Your task to perform on an android device: open chrome and create a bookmark for the current page Image 0: 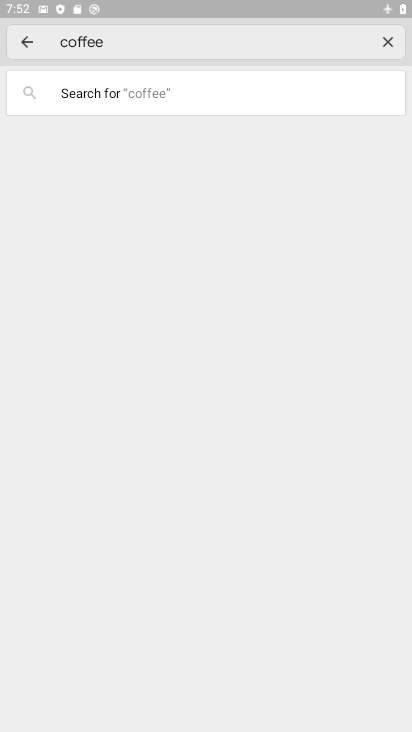
Step 0: press home button
Your task to perform on an android device: open chrome and create a bookmark for the current page Image 1: 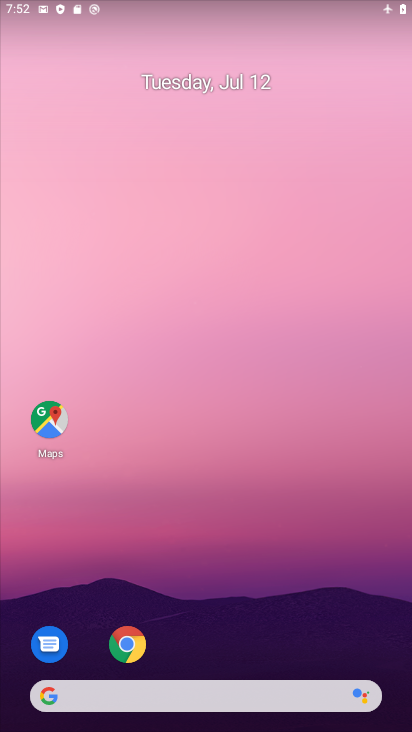
Step 1: click (122, 645)
Your task to perform on an android device: open chrome and create a bookmark for the current page Image 2: 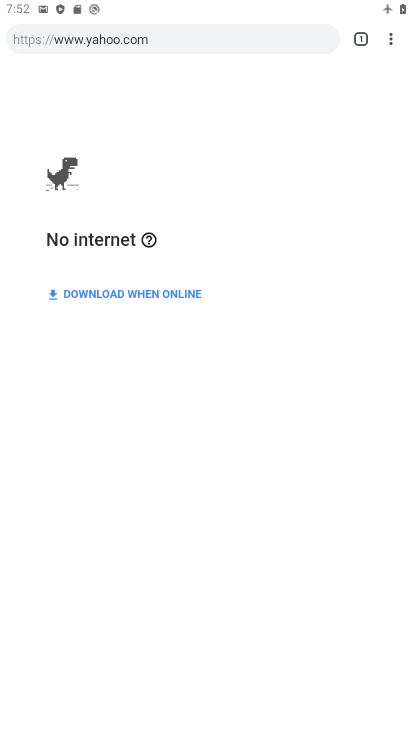
Step 2: click (355, 39)
Your task to perform on an android device: open chrome and create a bookmark for the current page Image 3: 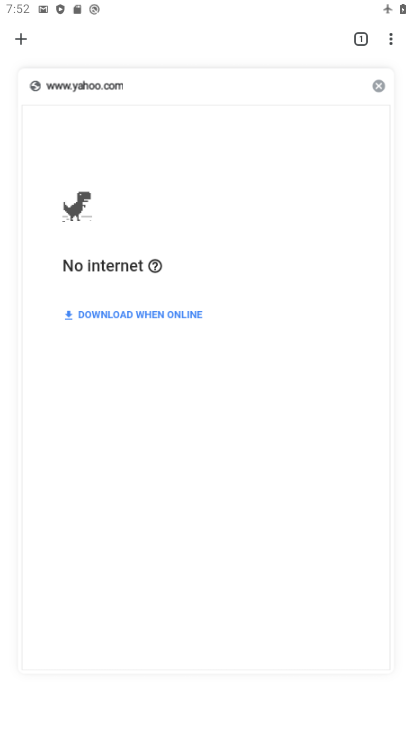
Step 3: click (19, 33)
Your task to perform on an android device: open chrome and create a bookmark for the current page Image 4: 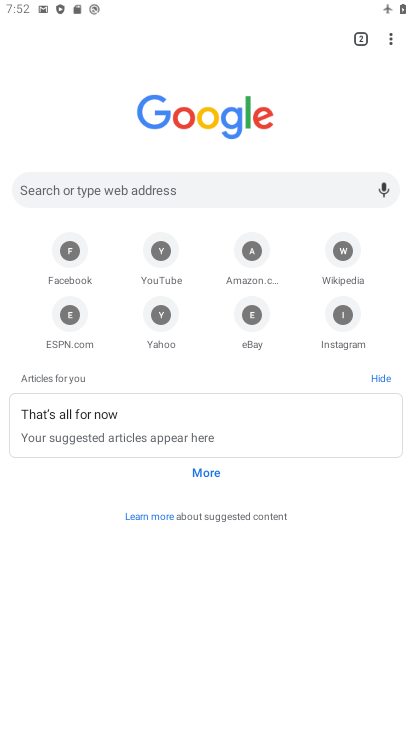
Step 4: task complete